Your task to perform on an android device: Open settings on Google Maps Image 0: 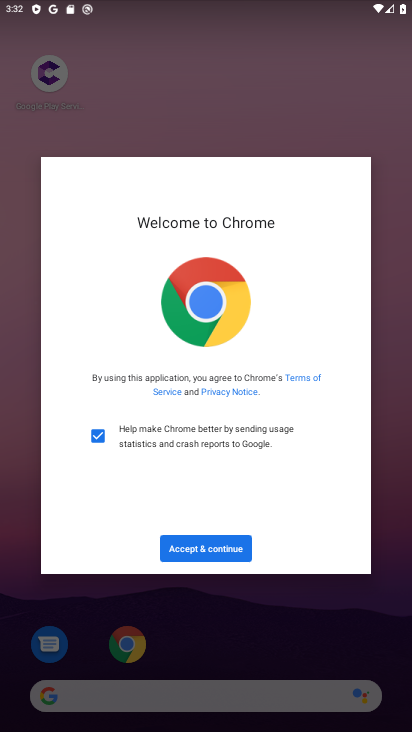
Step 0: press home button
Your task to perform on an android device: Open settings on Google Maps Image 1: 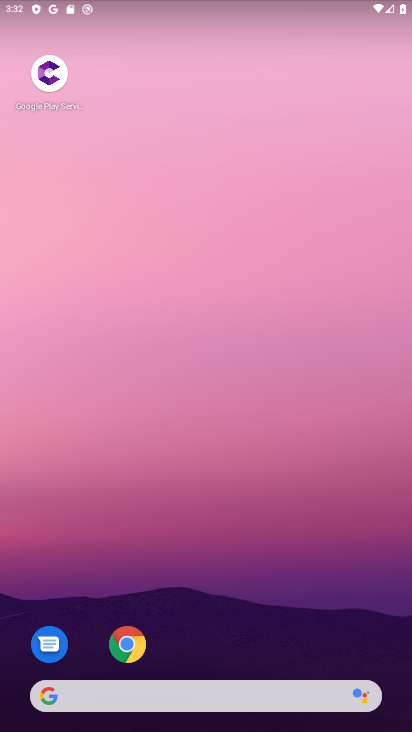
Step 1: drag from (221, 640) to (118, 81)
Your task to perform on an android device: Open settings on Google Maps Image 2: 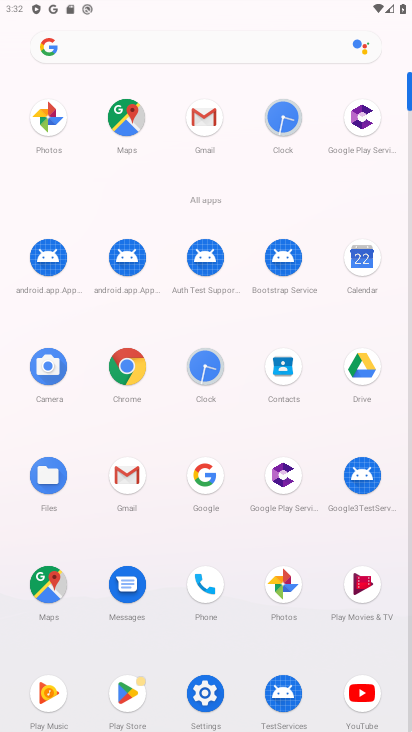
Step 2: click (130, 144)
Your task to perform on an android device: Open settings on Google Maps Image 3: 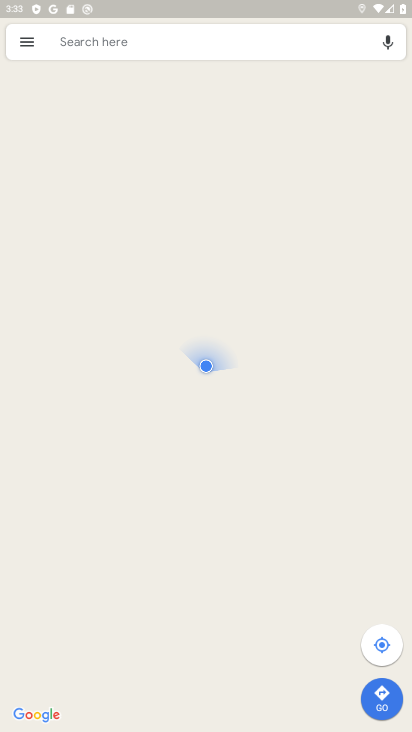
Step 3: click (28, 38)
Your task to perform on an android device: Open settings on Google Maps Image 4: 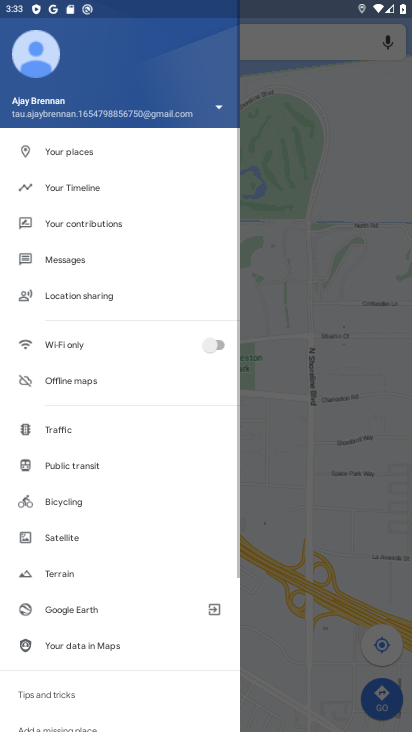
Step 4: drag from (97, 703) to (85, 348)
Your task to perform on an android device: Open settings on Google Maps Image 5: 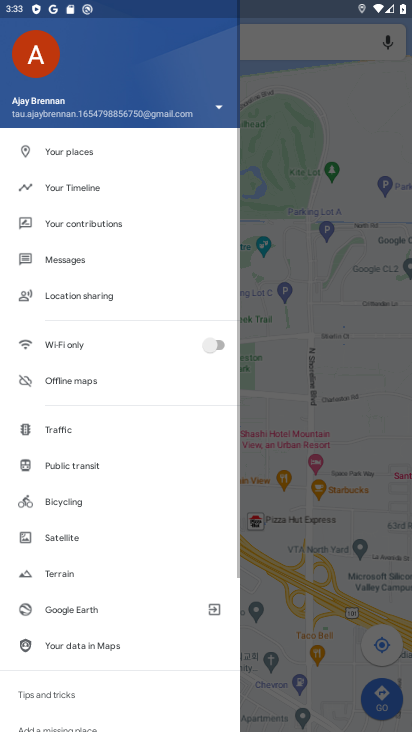
Step 5: drag from (61, 665) to (51, 380)
Your task to perform on an android device: Open settings on Google Maps Image 6: 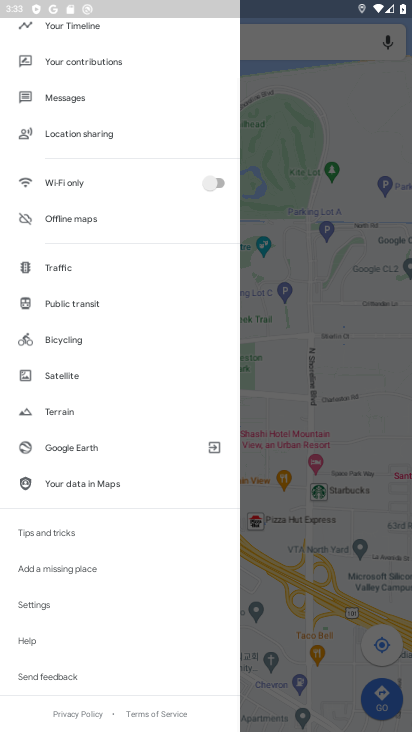
Step 6: click (41, 612)
Your task to perform on an android device: Open settings on Google Maps Image 7: 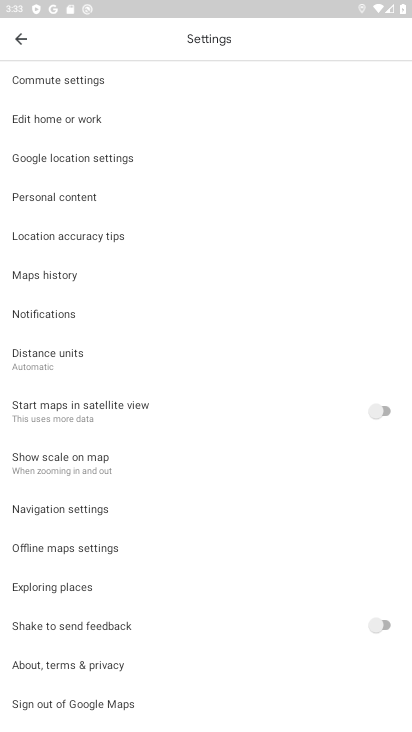
Step 7: task complete